Your task to perform on an android device: turn off smart reply in the gmail app Image 0: 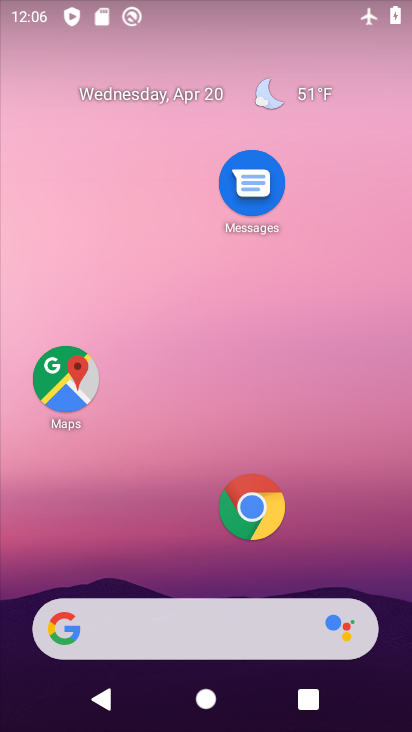
Step 0: drag from (160, 564) to (256, 85)
Your task to perform on an android device: turn off smart reply in the gmail app Image 1: 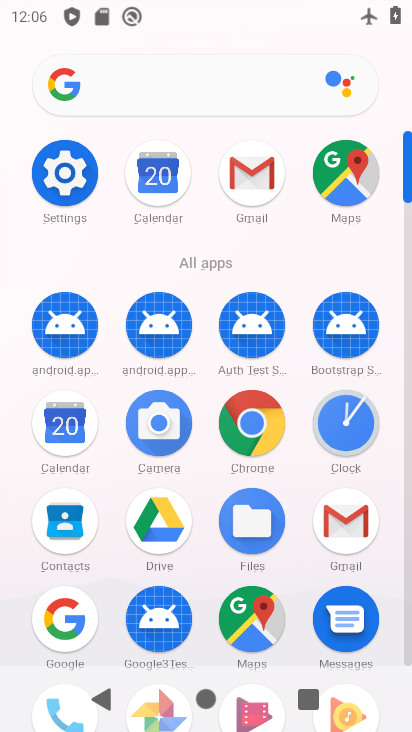
Step 1: click (249, 176)
Your task to perform on an android device: turn off smart reply in the gmail app Image 2: 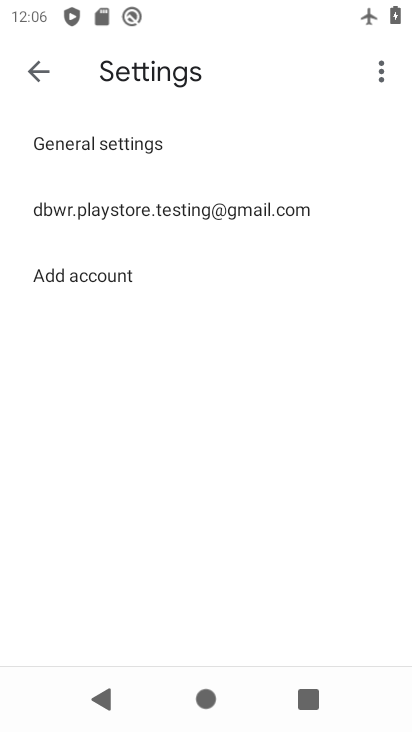
Step 2: click (184, 212)
Your task to perform on an android device: turn off smart reply in the gmail app Image 3: 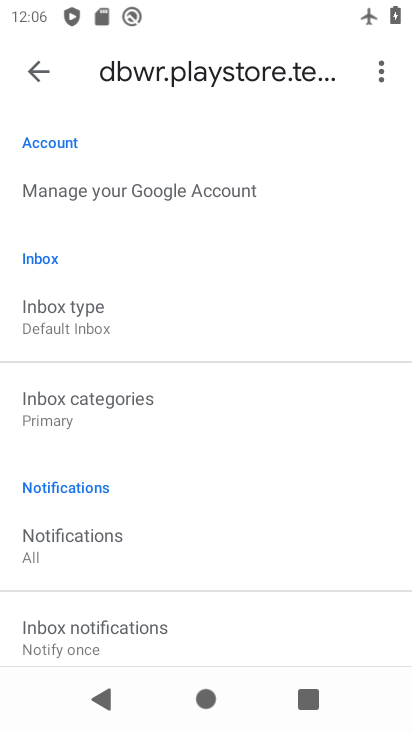
Step 3: drag from (174, 467) to (229, 337)
Your task to perform on an android device: turn off smart reply in the gmail app Image 4: 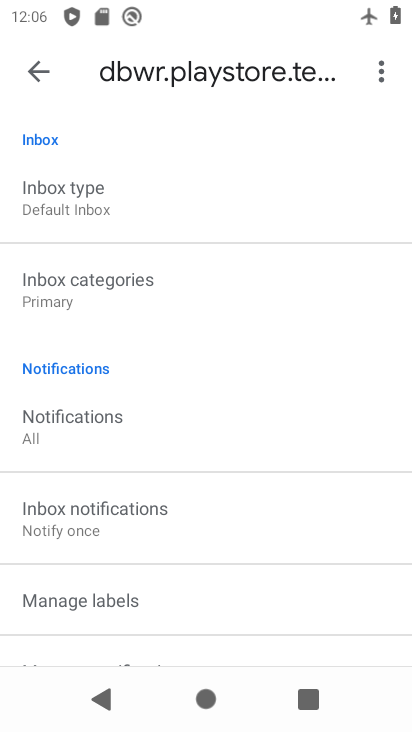
Step 4: drag from (163, 448) to (224, 356)
Your task to perform on an android device: turn off smart reply in the gmail app Image 5: 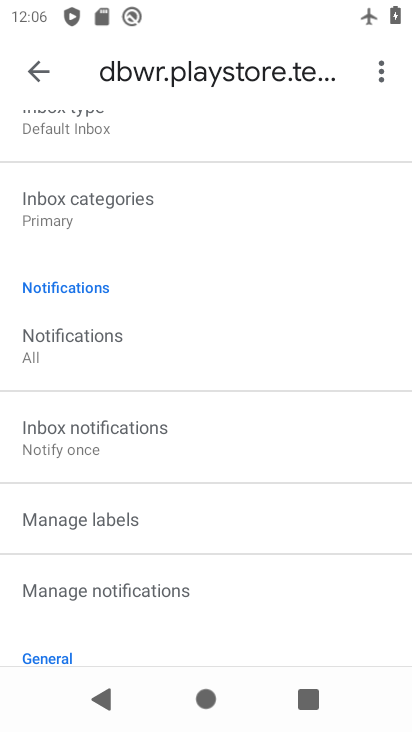
Step 5: drag from (186, 465) to (229, 353)
Your task to perform on an android device: turn off smart reply in the gmail app Image 6: 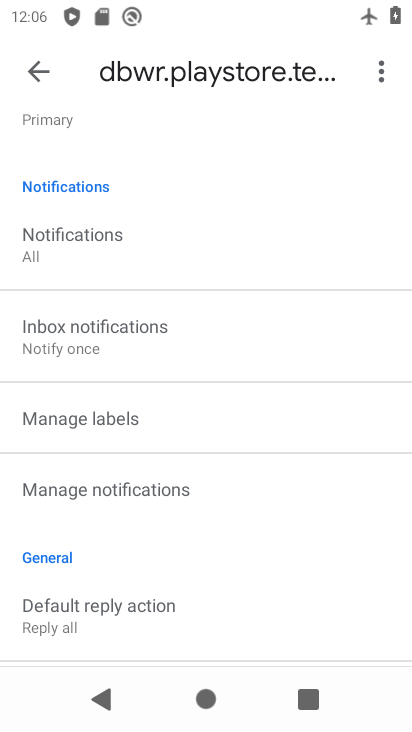
Step 6: drag from (158, 441) to (214, 366)
Your task to perform on an android device: turn off smart reply in the gmail app Image 7: 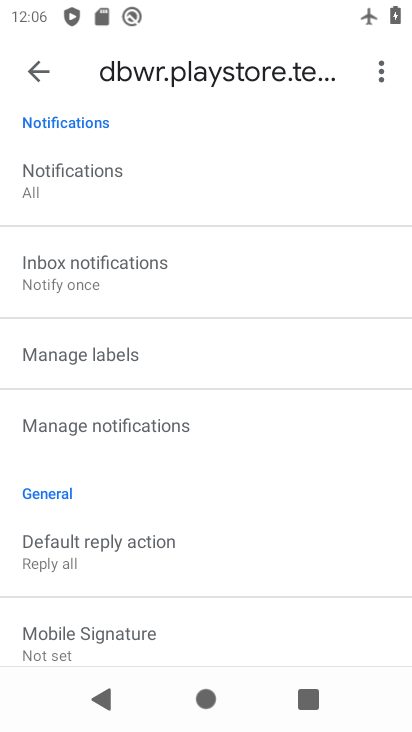
Step 7: drag from (178, 497) to (219, 372)
Your task to perform on an android device: turn off smart reply in the gmail app Image 8: 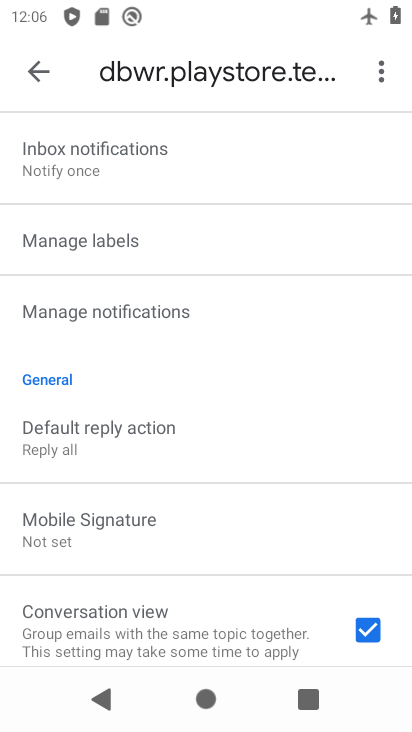
Step 8: drag from (179, 513) to (222, 392)
Your task to perform on an android device: turn off smart reply in the gmail app Image 9: 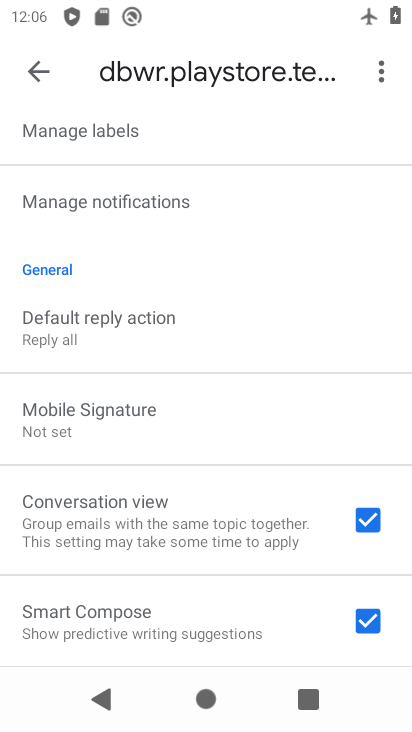
Step 9: drag from (166, 564) to (215, 418)
Your task to perform on an android device: turn off smart reply in the gmail app Image 10: 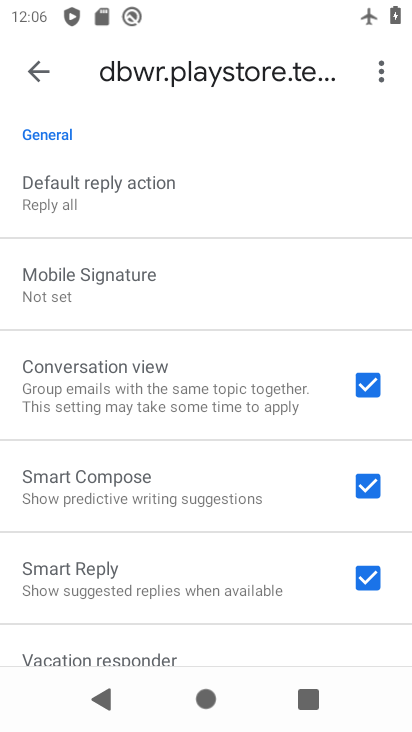
Step 10: drag from (177, 515) to (241, 419)
Your task to perform on an android device: turn off smart reply in the gmail app Image 11: 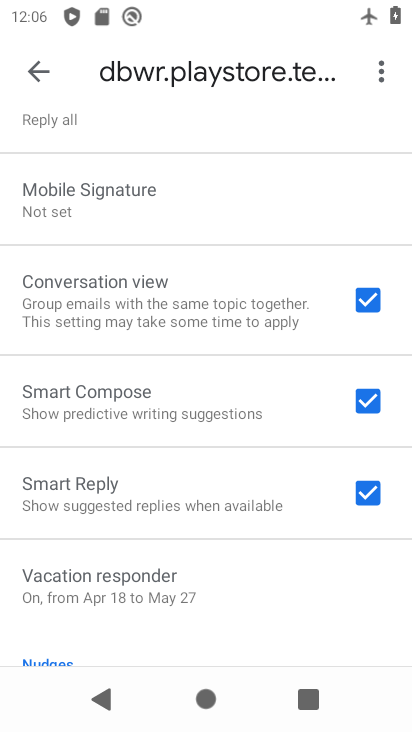
Step 11: click (365, 491)
Your task to perform on an android device: turn off smart reply in the gmail app Image 12: 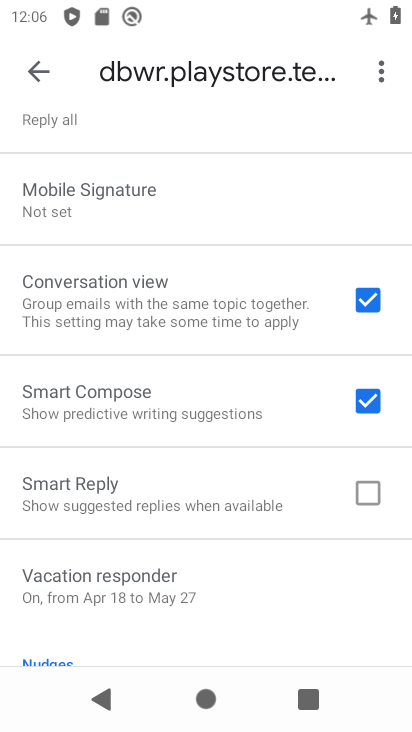
Step 12: task complete